Your task to perform on an android device: Is it going to rain today? Image 0: 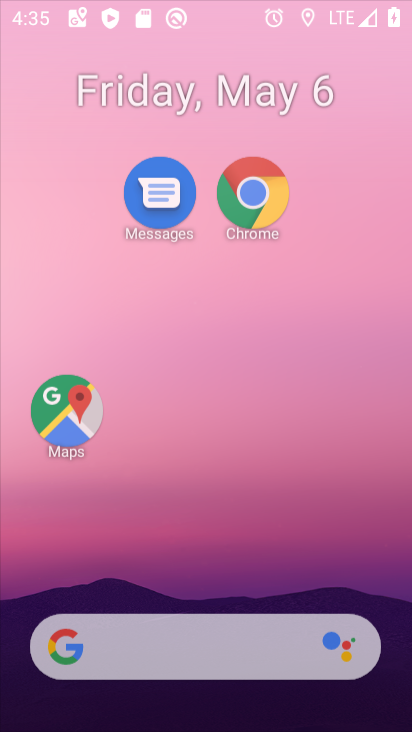
Step 0: click (219, 272)
Your task to perform on an android device: Is it going to rain today? Image 1: 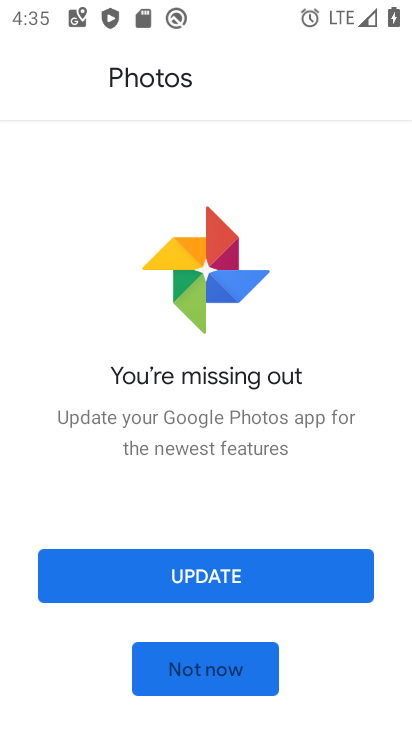
Step 1: press home button
Your task to perform on an android device: Is it going to rain today? Image 2: 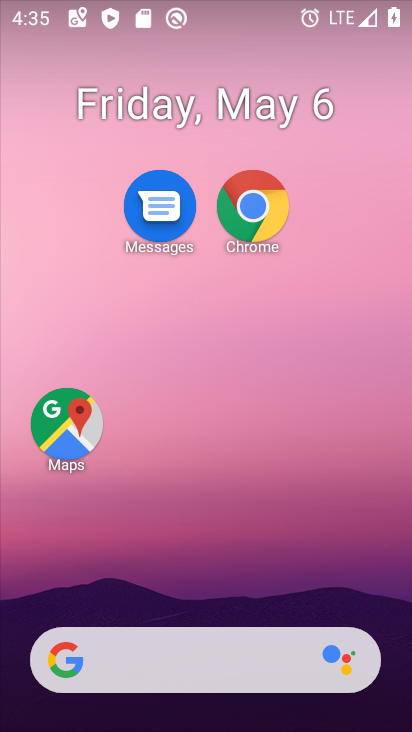
Step 2: drag from (181, 587) to (136, 297)
Your task to perform on an android device: Is it going to rain today? Image 3: 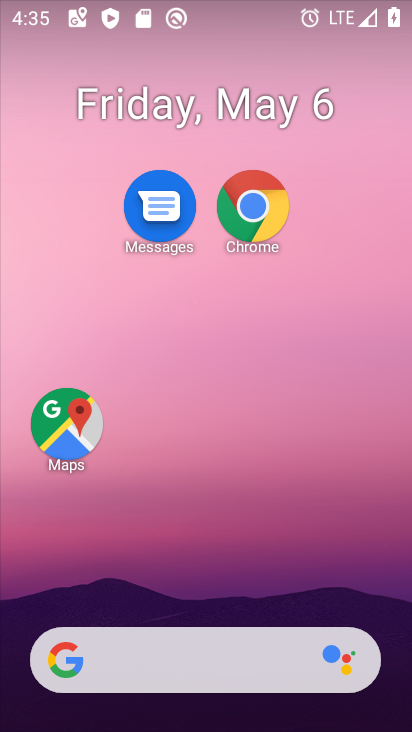
Step 3: drag from (99, 598) to (61, 207)
Your task to perform on an android device: Is it going to rain today? Image 4: 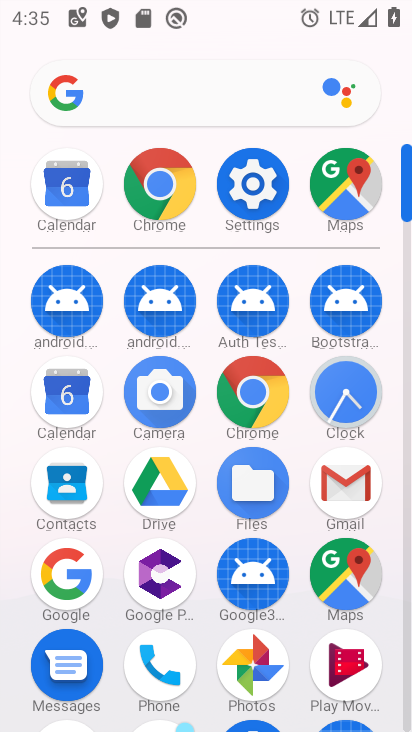
Step 4: click (74, 576)
Your task to perform on an android device: Is it going to rain today? Image 5: 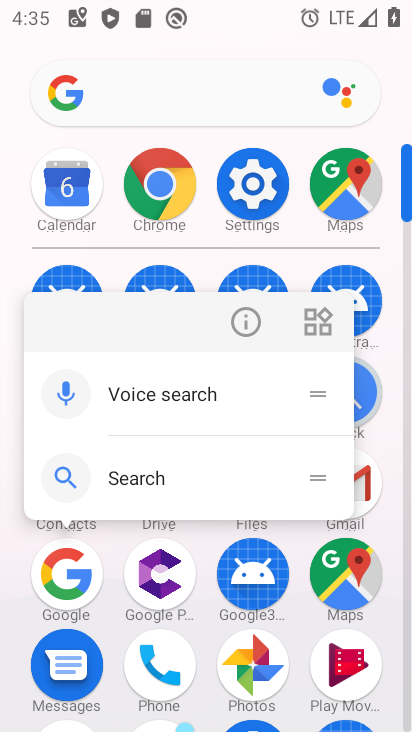
Step 5: click (74, 576)
Your task to perform on an android device: Is it going to rain today? Image 6: 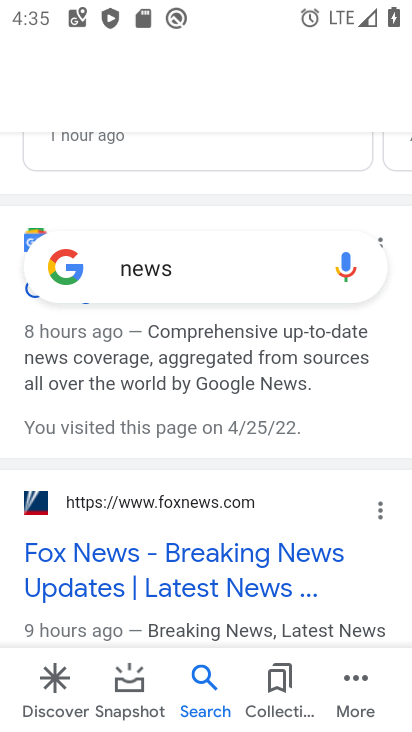
Step 6: click (199, 274)
Your task to perform on an android device: Is it going to rain today? Image 7: 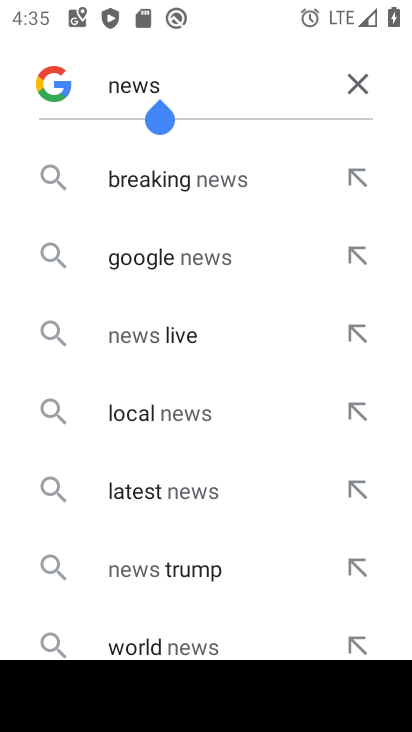
Step 7: click (362, 83)
Your task to perform on an android device: Is it going to rain today? Image 8: 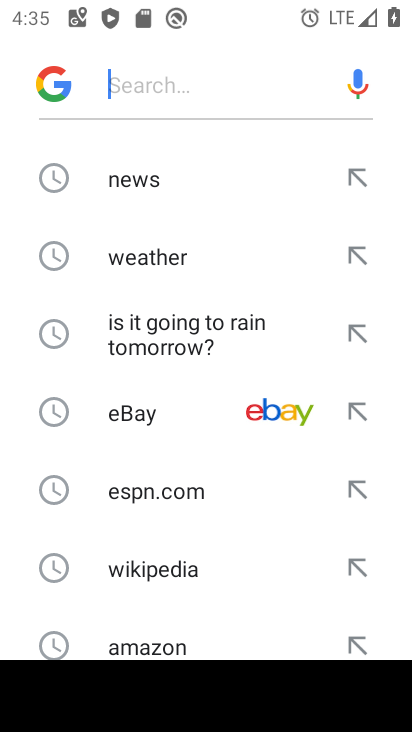
Step 8: click (137, 265)
Your task to perform on an android device: Is it going to rain today? Image 9: 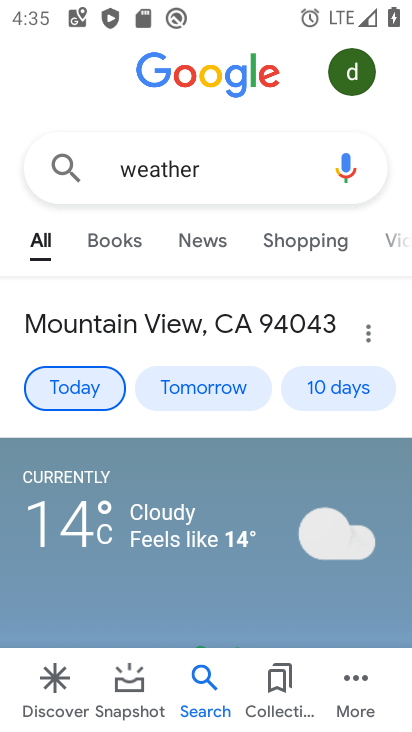
Step 9: task complete